Your task to perform on an android device: check google app version Image 0: 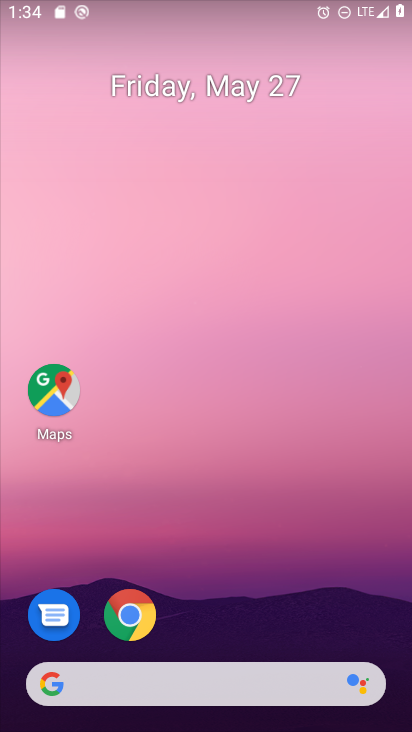
Step 0: drag from (307, 714) to (190, 11)
Your task to perform on an android device: check google app version Image 1: 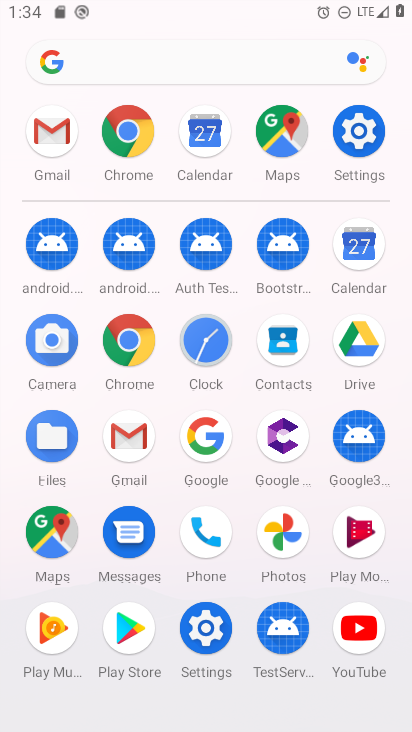
Step 1: click (123, 350)
Your task to perform on an android device: check google app version Image 2: 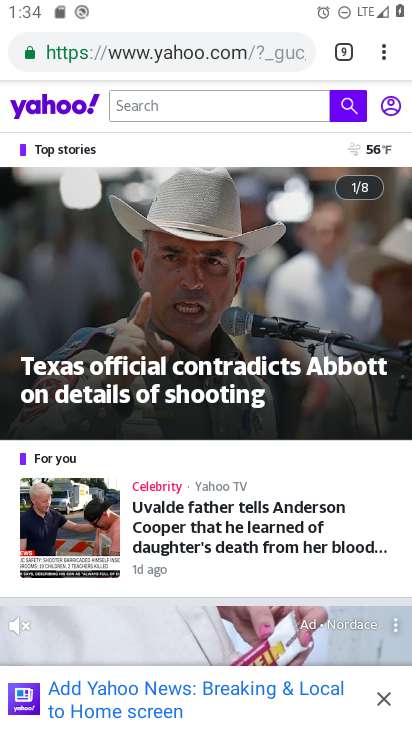
Step 2: drag from (389, 53) to (213, 690)
Your task to perform on an android device: check google app version Image 3: 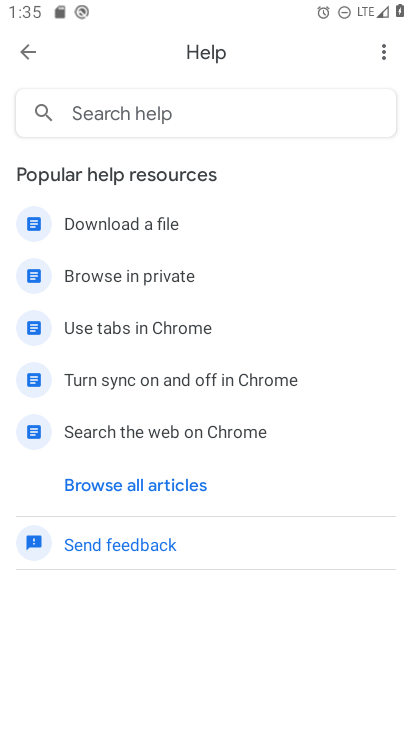
Step 3: click (371, 51)
Your task to perform on an android device: check google app version Image 4: 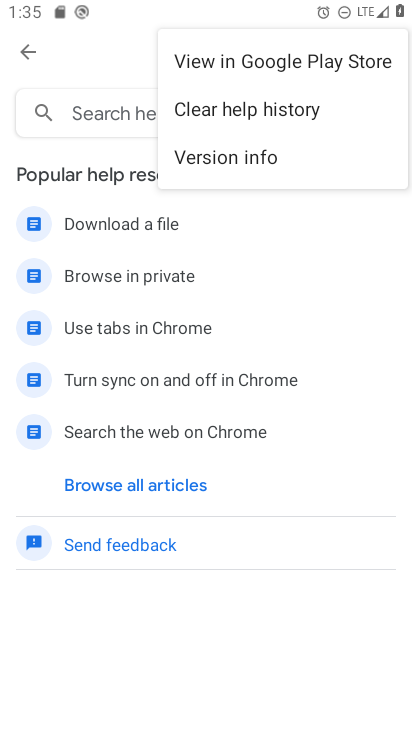
Step 4: click (293, 165)
Your task to perform on an android device: check google app version Image 5: 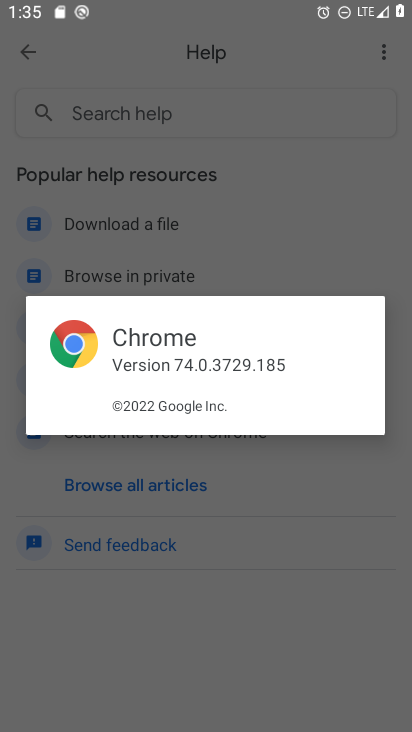
Step 5: task complete